Your task to perform on an android device: turn on javascript in the chrome app Image 0: 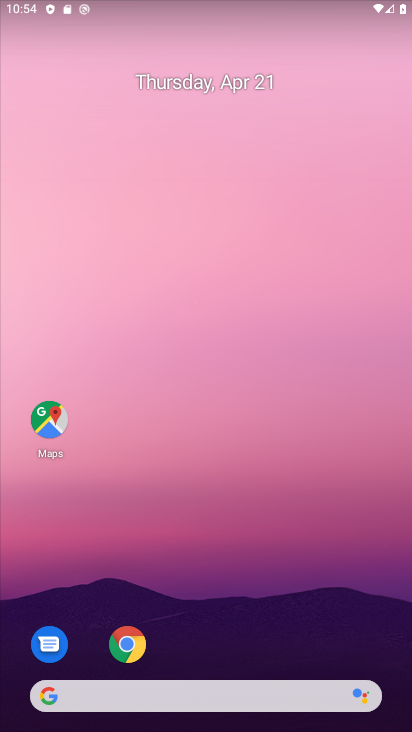
Step 0: click (133, 653)
Your task to perform on an android device: turn on javascript in the chrome app Image 1: 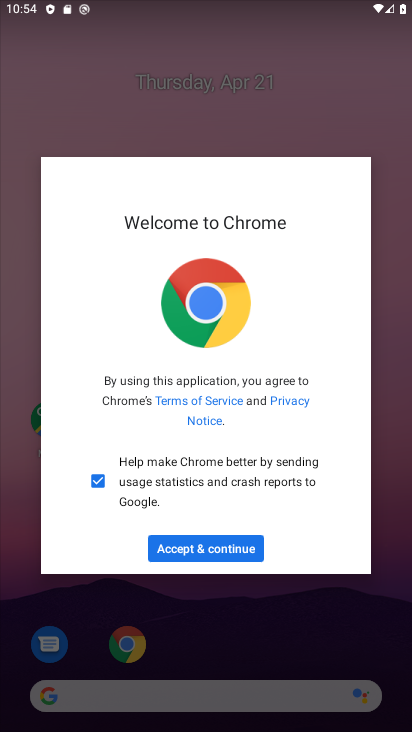
Step 1: click (229, 546)
Your task to perform on an android device: turn on javascript in the chrome app Image 2: 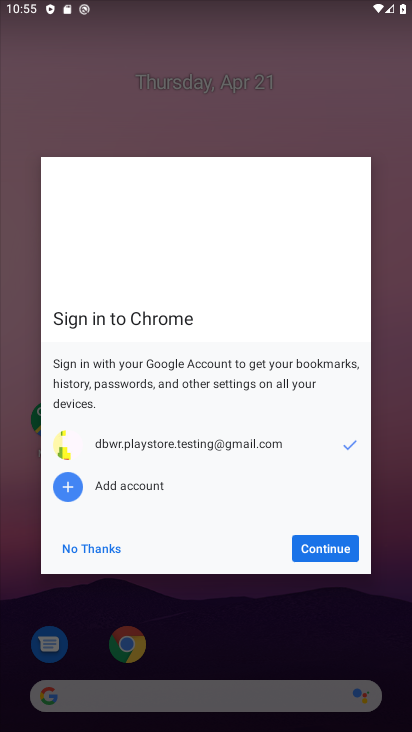
Step 2: click (305, 552)
Your task to perform on an android device: turn on javascript in the chrome app Image 3: 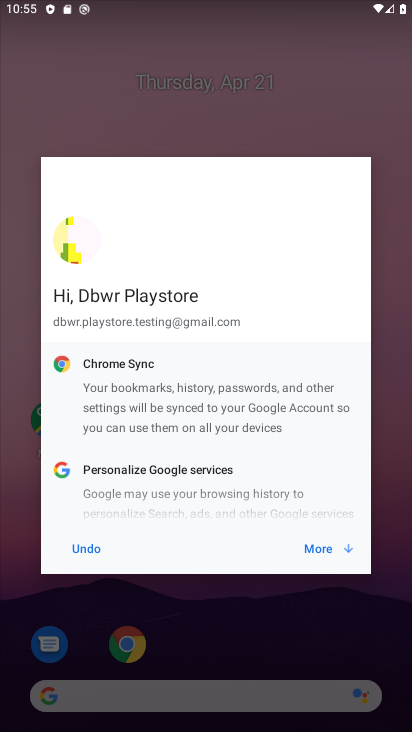
Step 3: click (305, 552)
Your task to perform on an android device: turn on javascript in the chrome app Image 4: 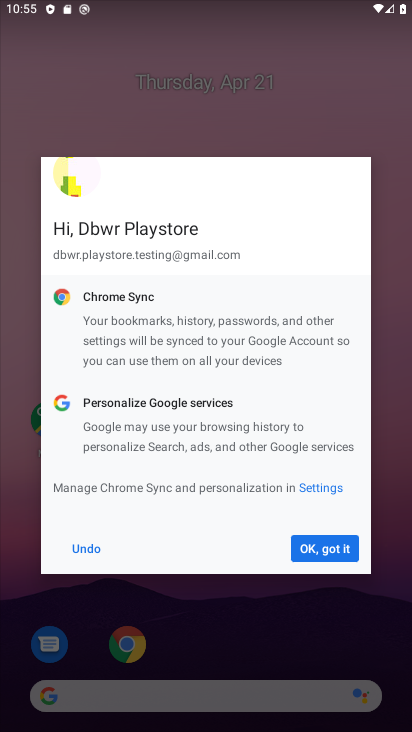
Step 4: click (305, 552)
Your task to perform on an android device: turn on javascript in the chrome app Image 5: 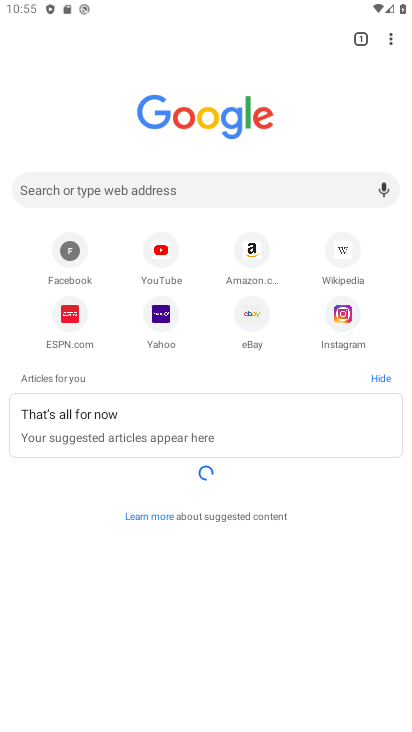
Step 5: drag from (392, 41) to (281, 326)
Your task to perform on an android device: turn on javascript in the chrome app Image 6: 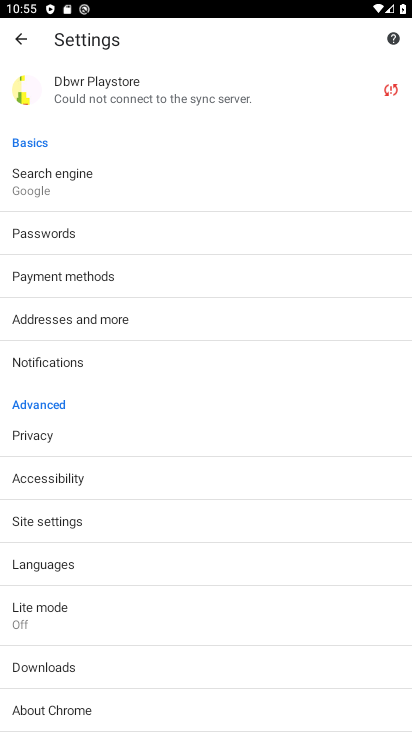
Step 6: click (192, 523)
Your task to perform on an android device: turn on javascript in the chrome app Image 7: 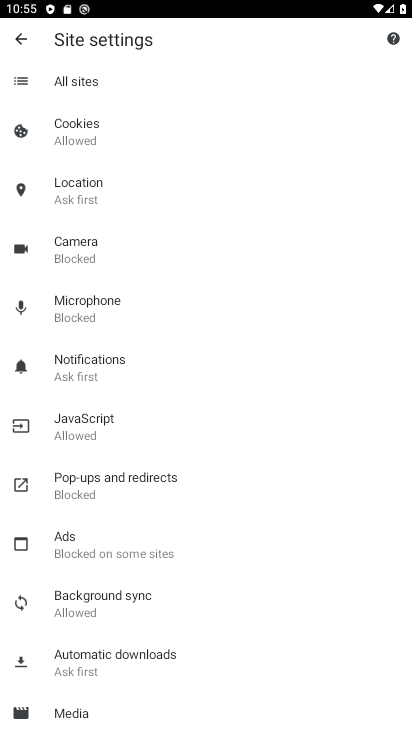
Step 7: click (204, 431)
Your task to perform on an android device: turn on javascript in the chrome app Image 8: 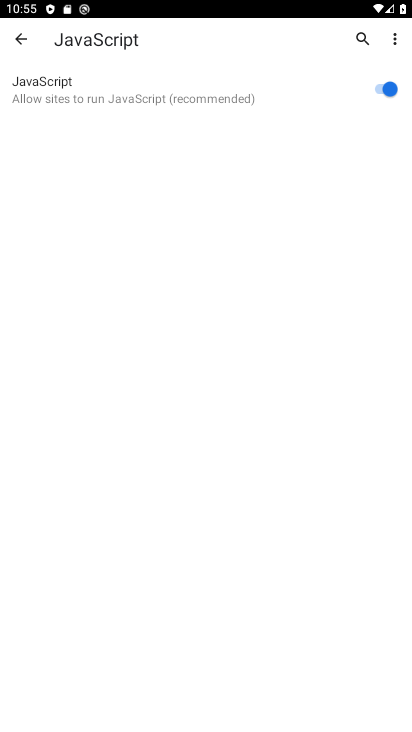
Step 8: task complete